Your task to perform on an android device: turn on improve location accuracy Image 0: 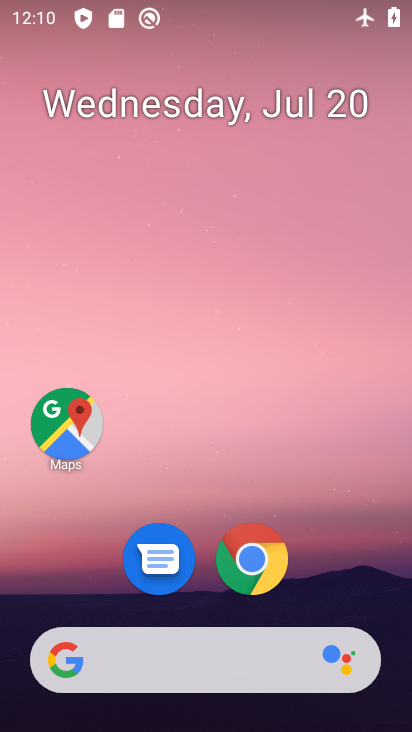
Step 0: press home button
Your task to perform on an android device: turn on improve location accuracy Image 1: 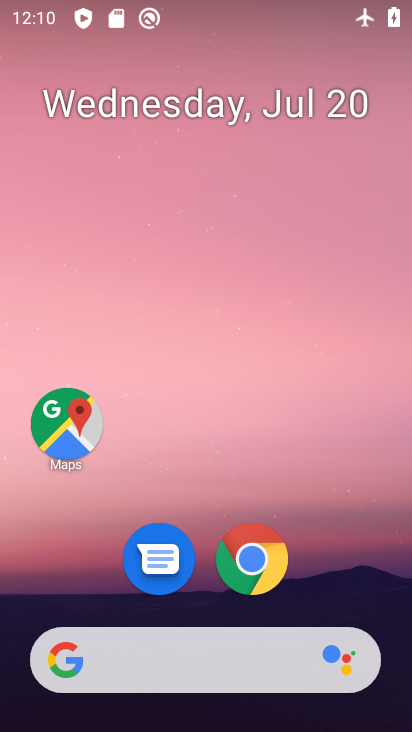
Step 1: drag from (366, 588) to (368, 154)
Your task to perform on an android device: turn on improve location accuracy Image 2: 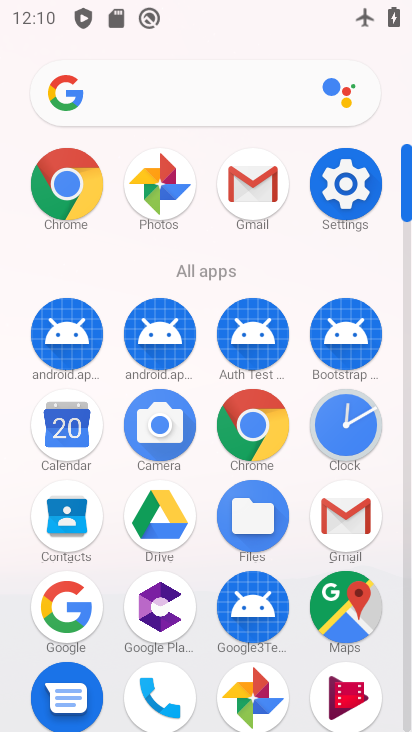
Step 2: click (369, 186)
Your task to perform on an android device: turn on improve location accuracy Image 3: 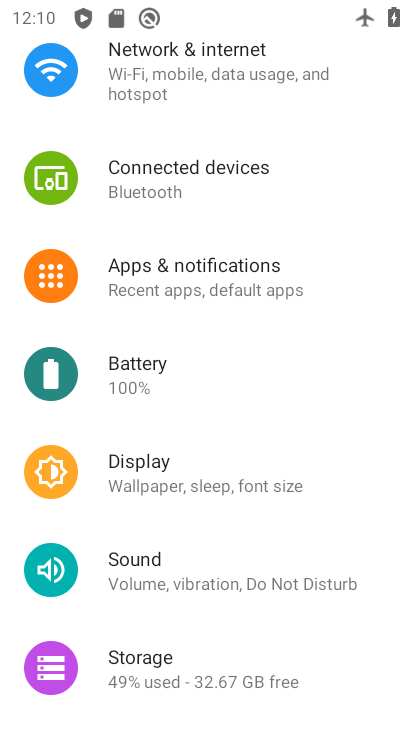
Step 3: drag from (361, 196) to (363, 279)
Your task to perform on an android device: turn on improve location accuracy Image 4: 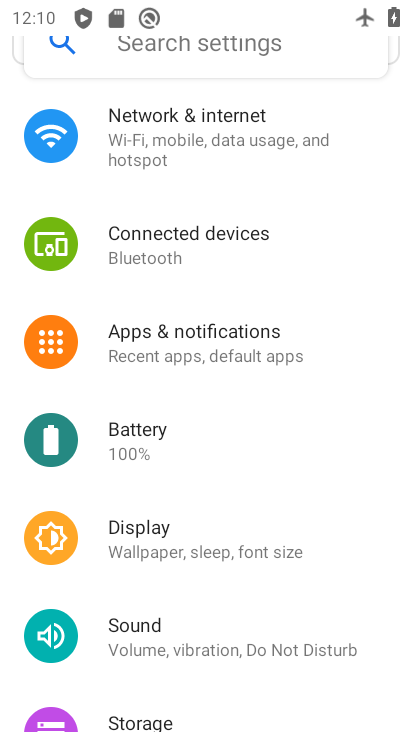
Step 4: drag from (364, 188) to (361, 378)
Your task to perform on an android device: turn on improve location accuracy Image 5: 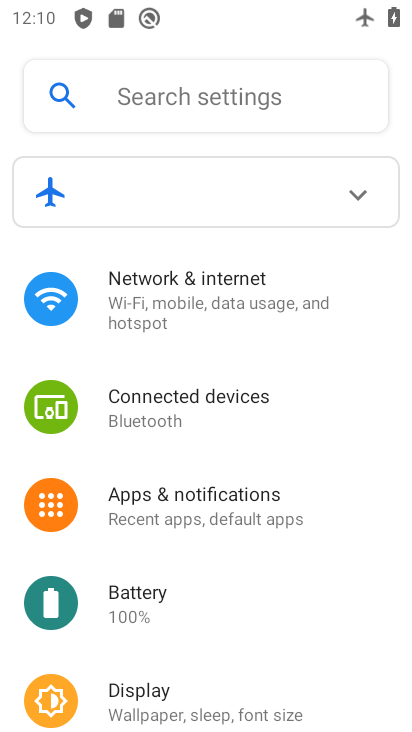
Step 5: drag from (348, 324) to (355, 442)
Your task to perform on an android device: turn on improve location accuracy Image 6: 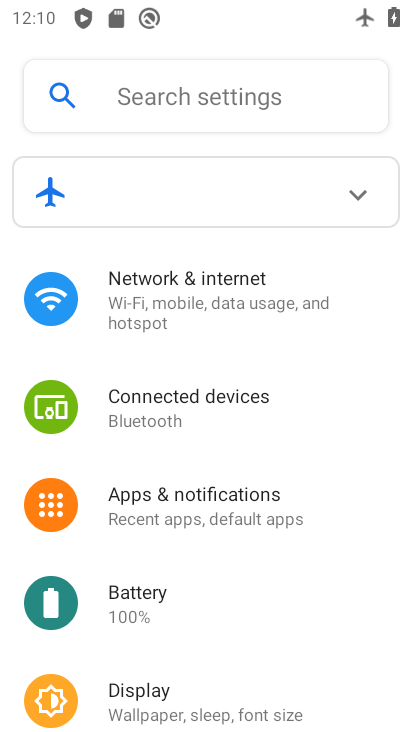
Step 6: drag from (364, 520) to (367, 418)
Your task to perform on an android device: turn on improve location accuracy Image 7: 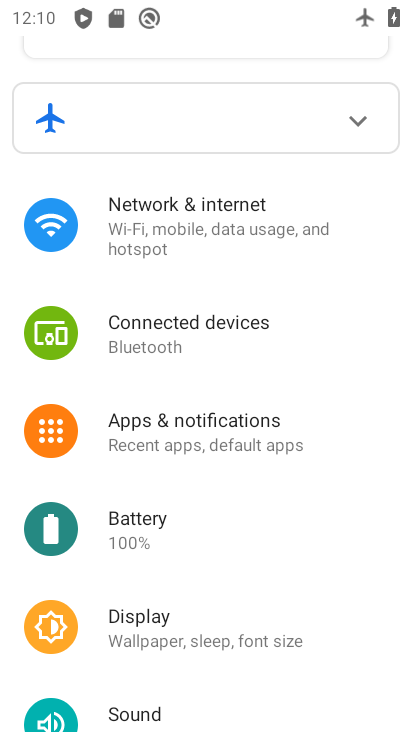
Step 7: drag from (352, 531) to (348, 413)
Your task to perform on an android device: turn on improve location accuracy Image 8: 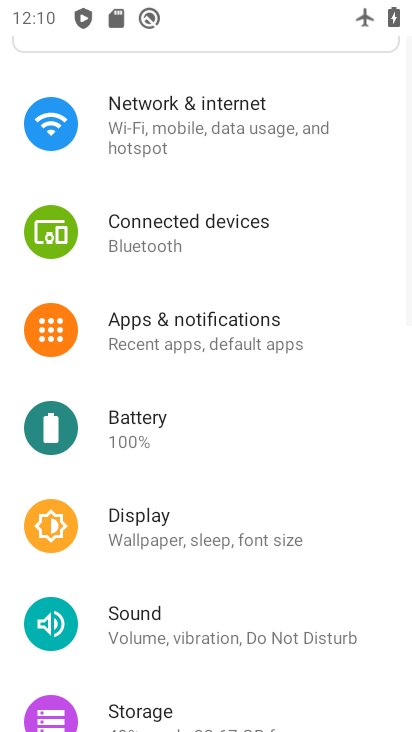
Step 8: drag from (350, 497) to (356, 387)
Your task to perform on an android device: turn on improve location accuracy Image 9: 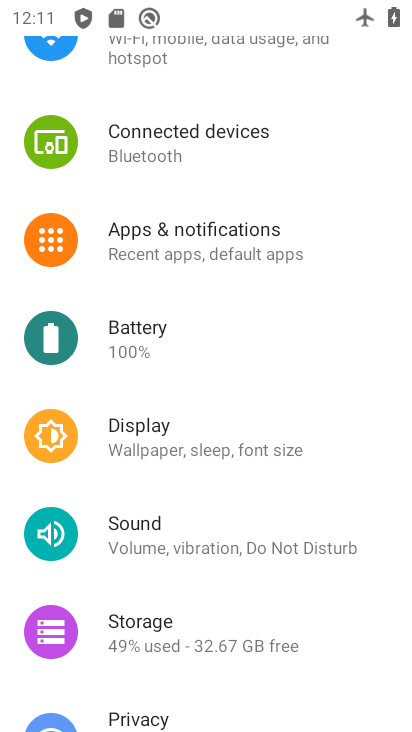
Step 9: drag from (361, 598) to (362, 450)
Your task to perform on an android device: turn on improve location accuracy Image 10: 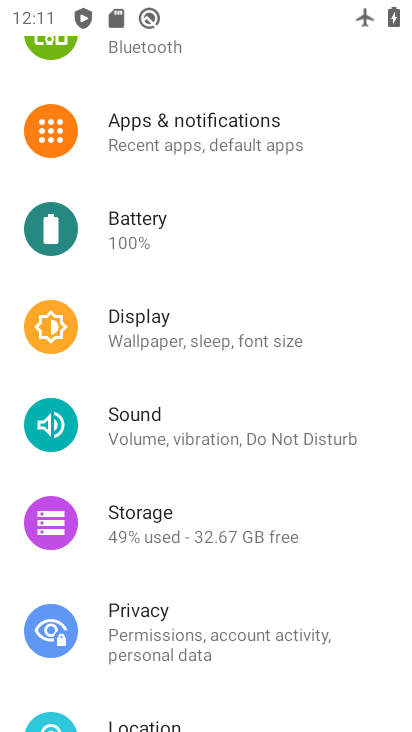
Step 10: drag from (350, 559) to (352, 386)
Your task to perform on an android device: turn on improve location accuracy Image 11: 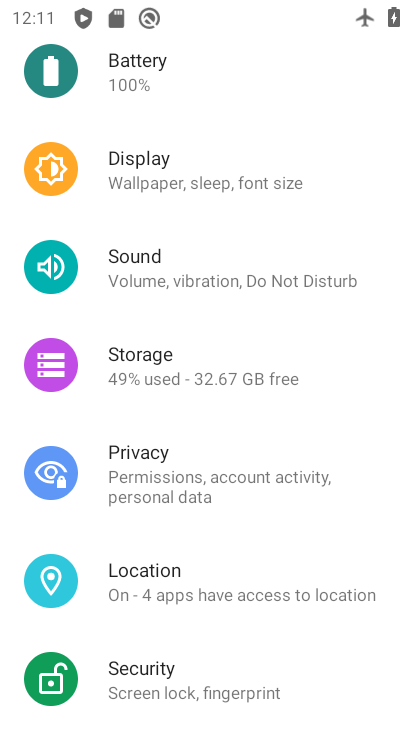
Step 11: click (354, 594)
Your task to perform on an android device: turn on improve location accuracy Image 12: 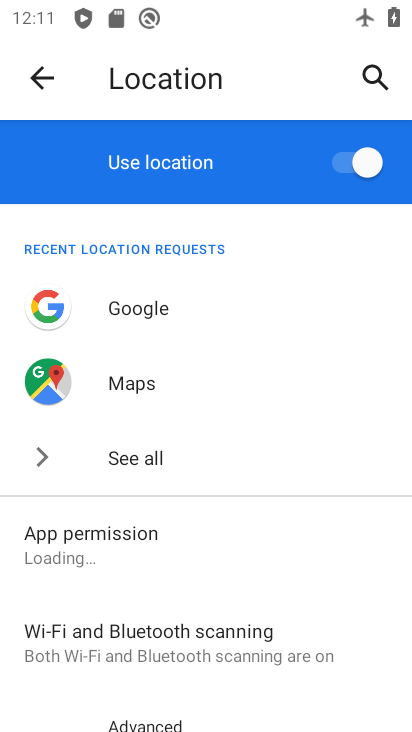
Step 12: drag from (349, 617) to (343, 499)
Your task to perform on an android device: turn on improve location accuracy Image 13: 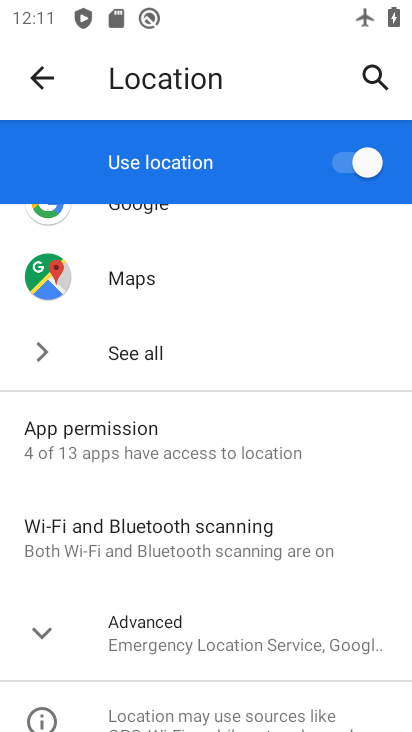
Step 13: click (333, 617)
Your task to perform on an android device: turn on improve location accuracy Image 14: 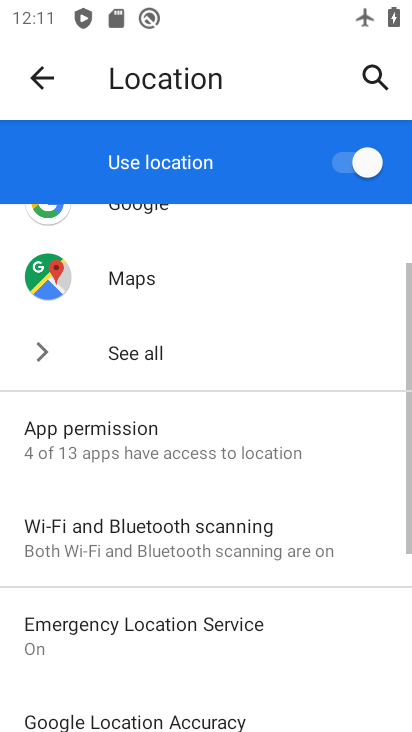
Step 14: drag from (336, 630) to (340, 502)
Your task to perform on an android device: turn on improve location accuracy Image 15: 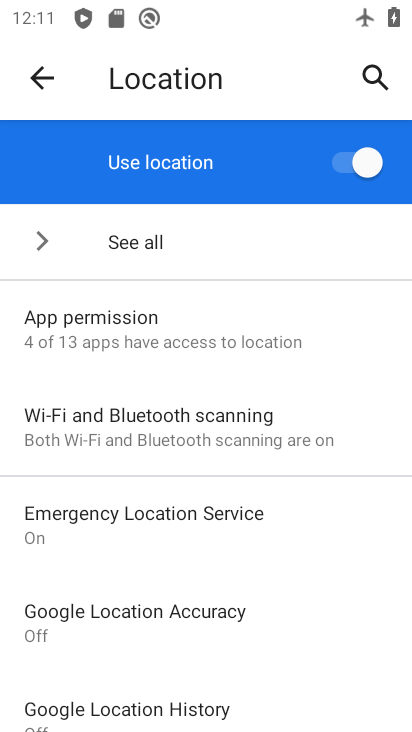
Step 15: drag from (325, 657) to (326, 533)
Your task to perform on an android device: turn on improve location accuracy Image 16: 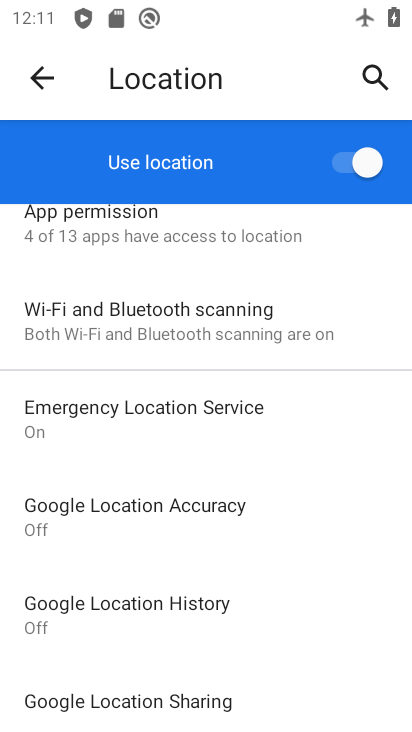
Step 16: click (225, 527)
Your task to perform on an android device: turn on improve location accuracy Image 17: 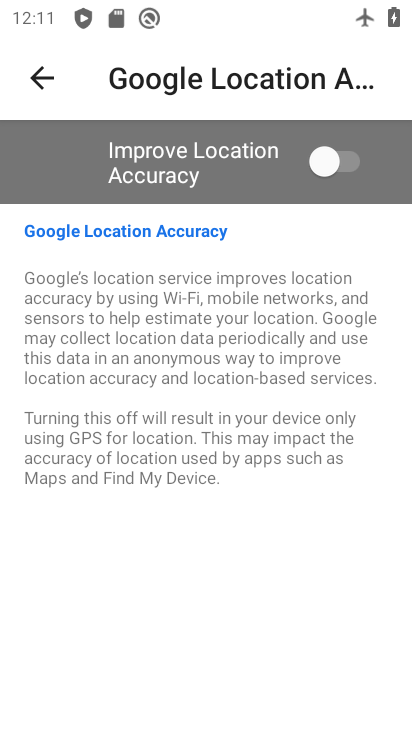
Step 17: click (322, 159)
Your task to perform on an android device: turn on improve location accuracy Image 18: 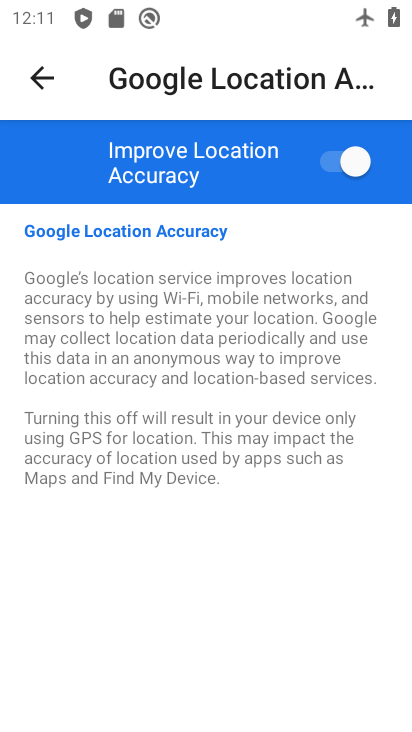
Step 18: task complete